Your task to perform on an android device: Add usb-c to usb-b to the cart on costco.com Image 0: 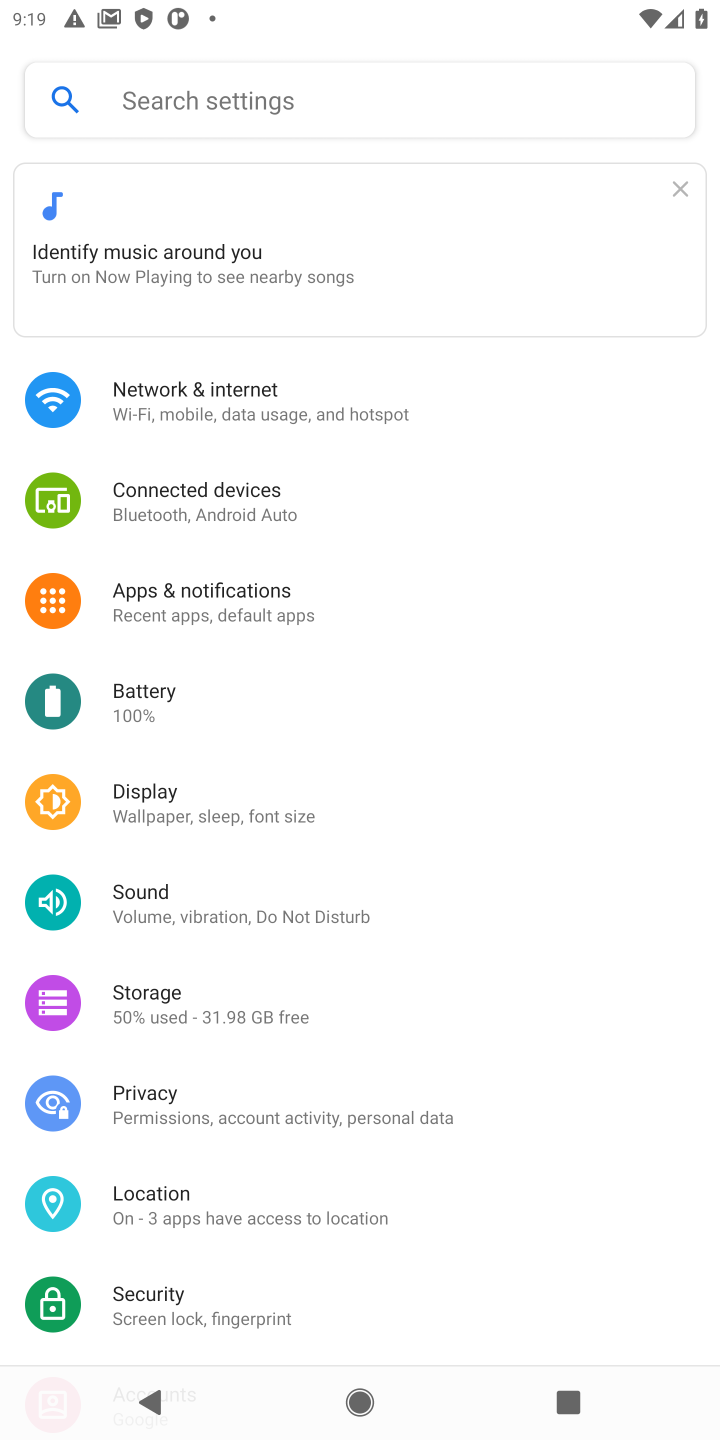
Step 0: press home button
Your task to perform on an android device: Add usb-c to usb-b to the cart on costco.com Image 1: 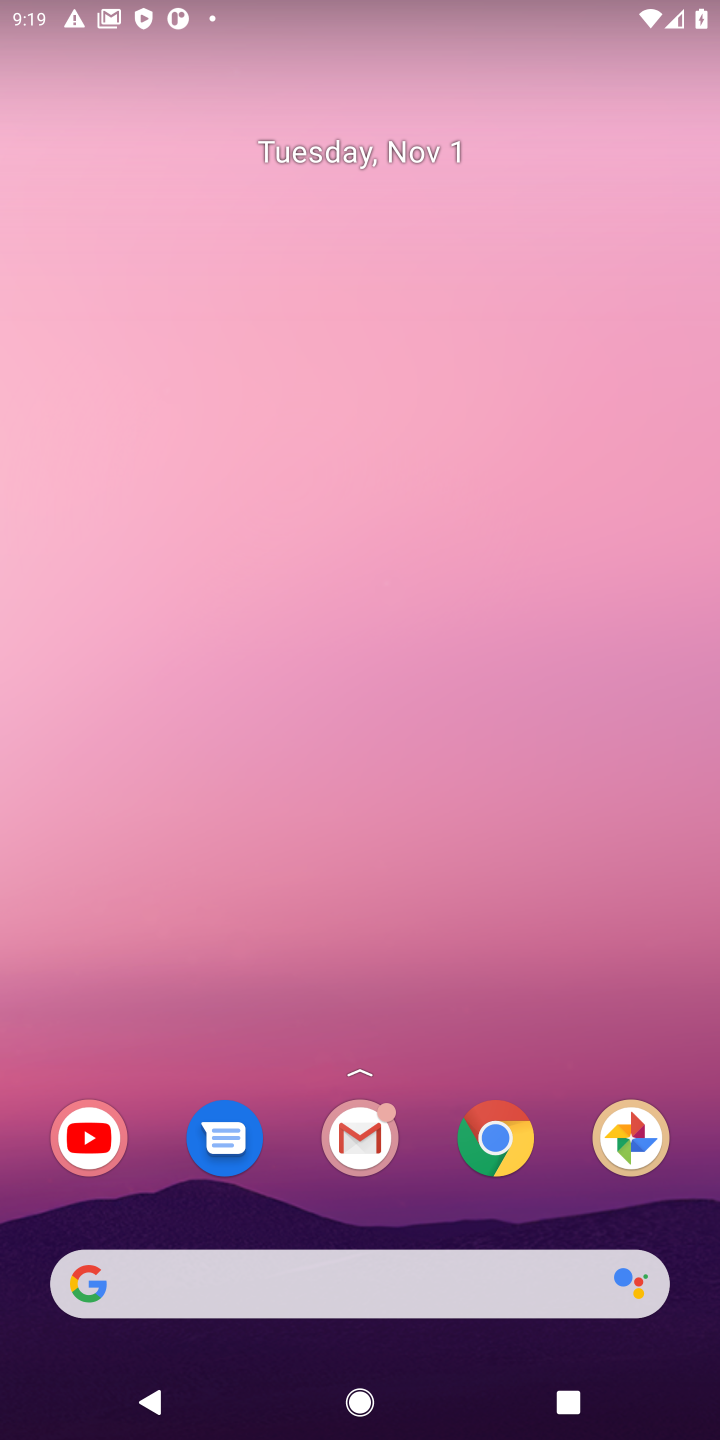
Step 1: click (491, 1158)
Your task to perform on an android device: Add usb-c to usb-b to the cart on costco.com Image 2: 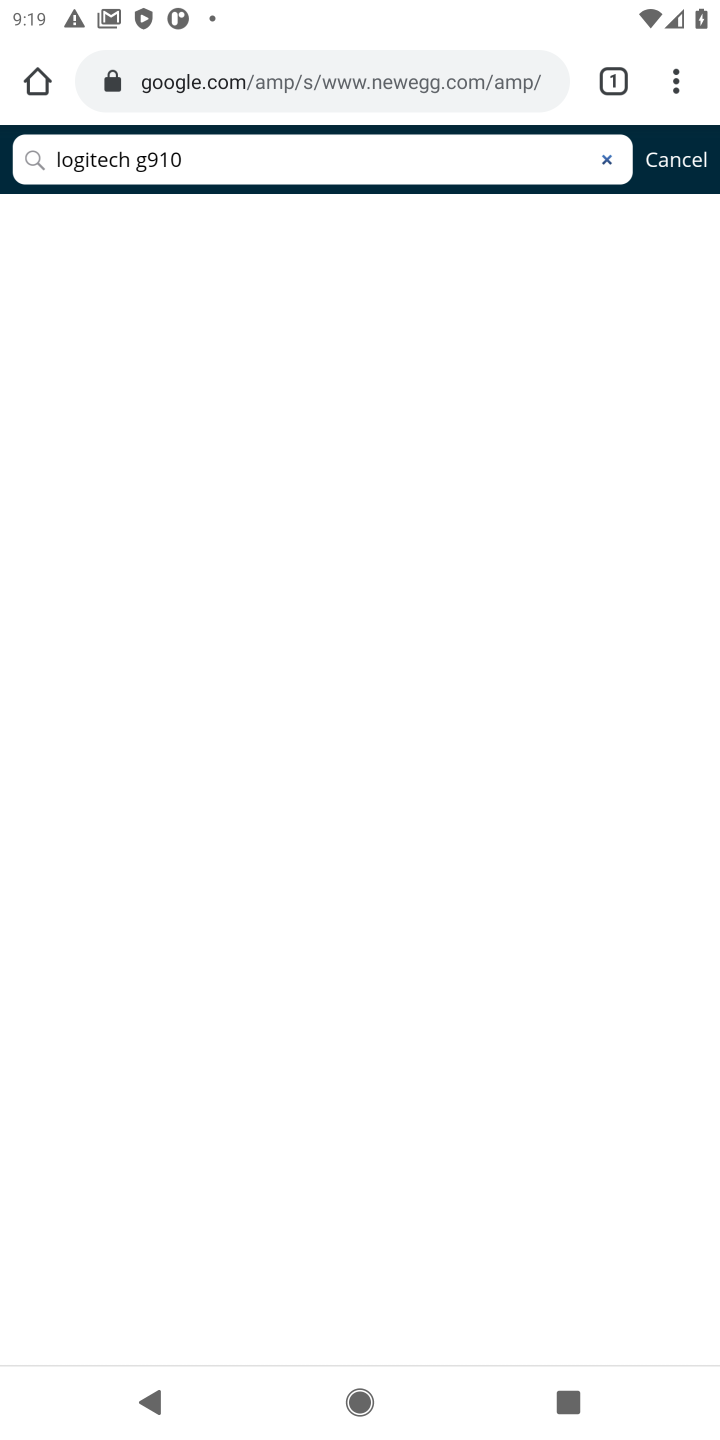
Step 2: click (249, 79)
Your task to perform on an android device: Add usb-c to usb-b to the cart on costco.com Image 3: 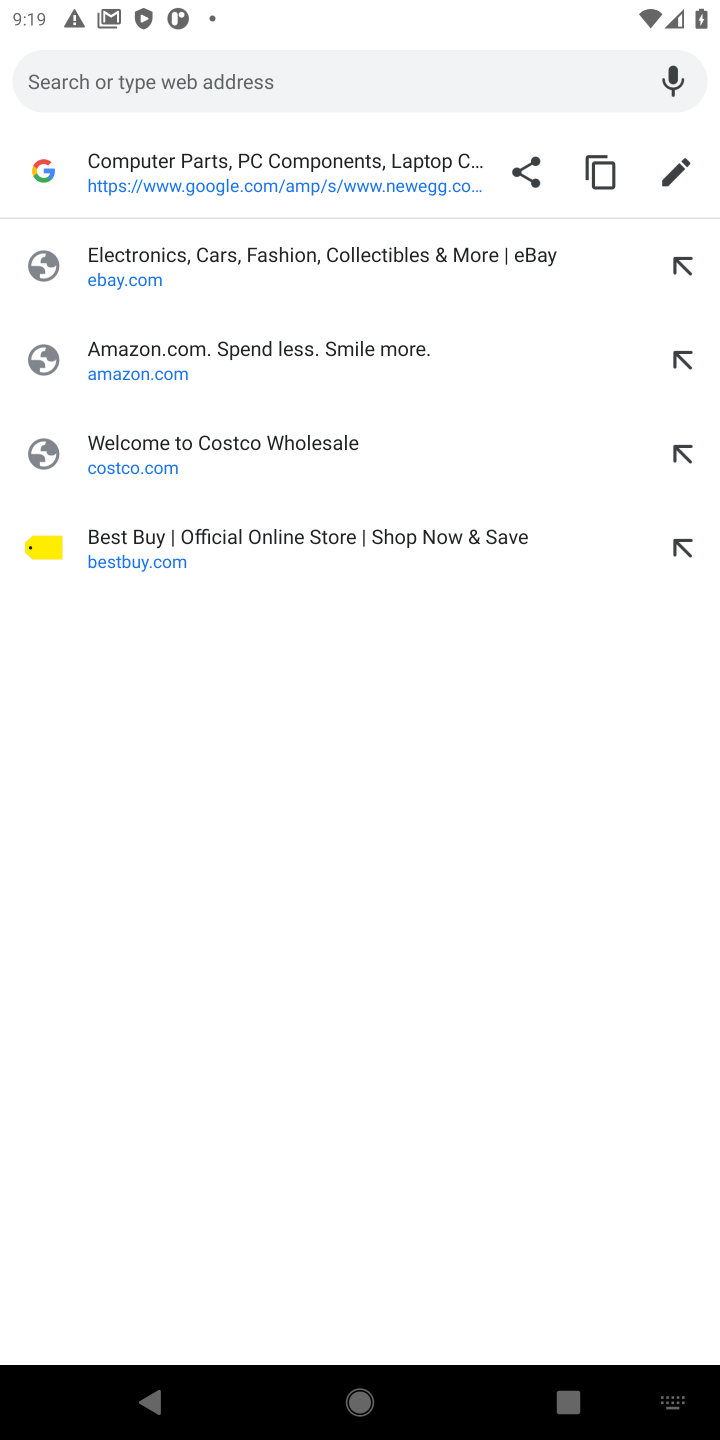
Step 3: type "costco.com"
Your task to perform on an android device: Add usb-c to usb-b to the cart on costco.com Image 4: 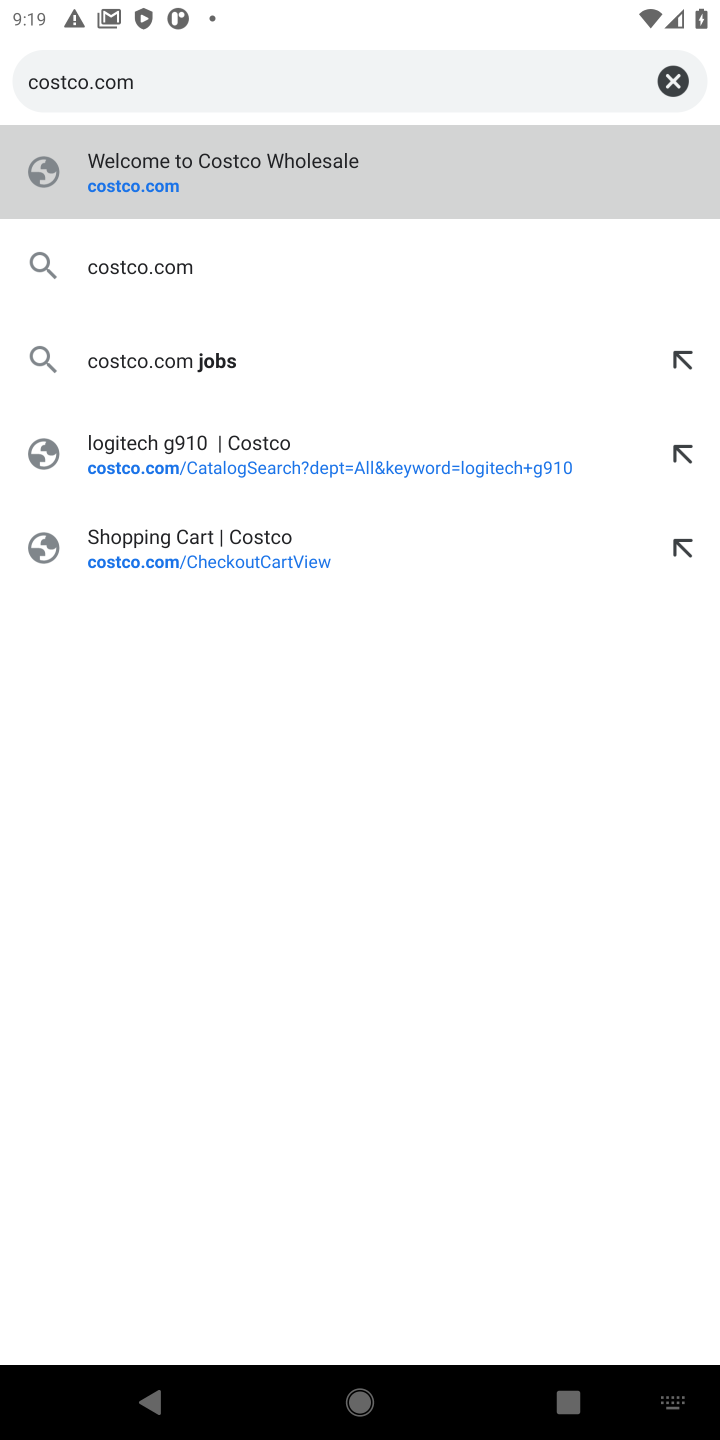
Step 4: click (131, 182)
Your task to perform on an android device: Add usb-c to usb-b to the cart on costco.com Image 5: 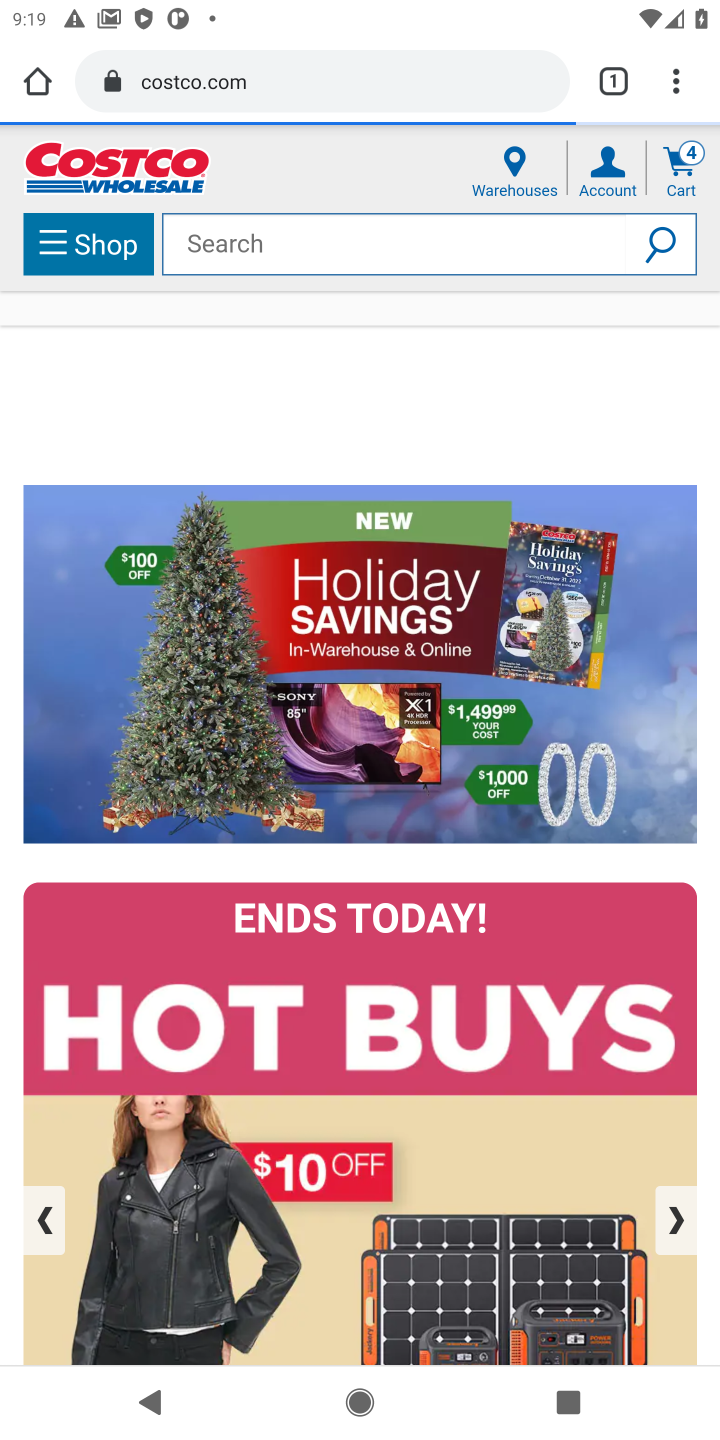
Step 5: click (229, 254)
Your task to perform on an android device: Add usb-c to usb-b to the cart on costco.com Image 6: 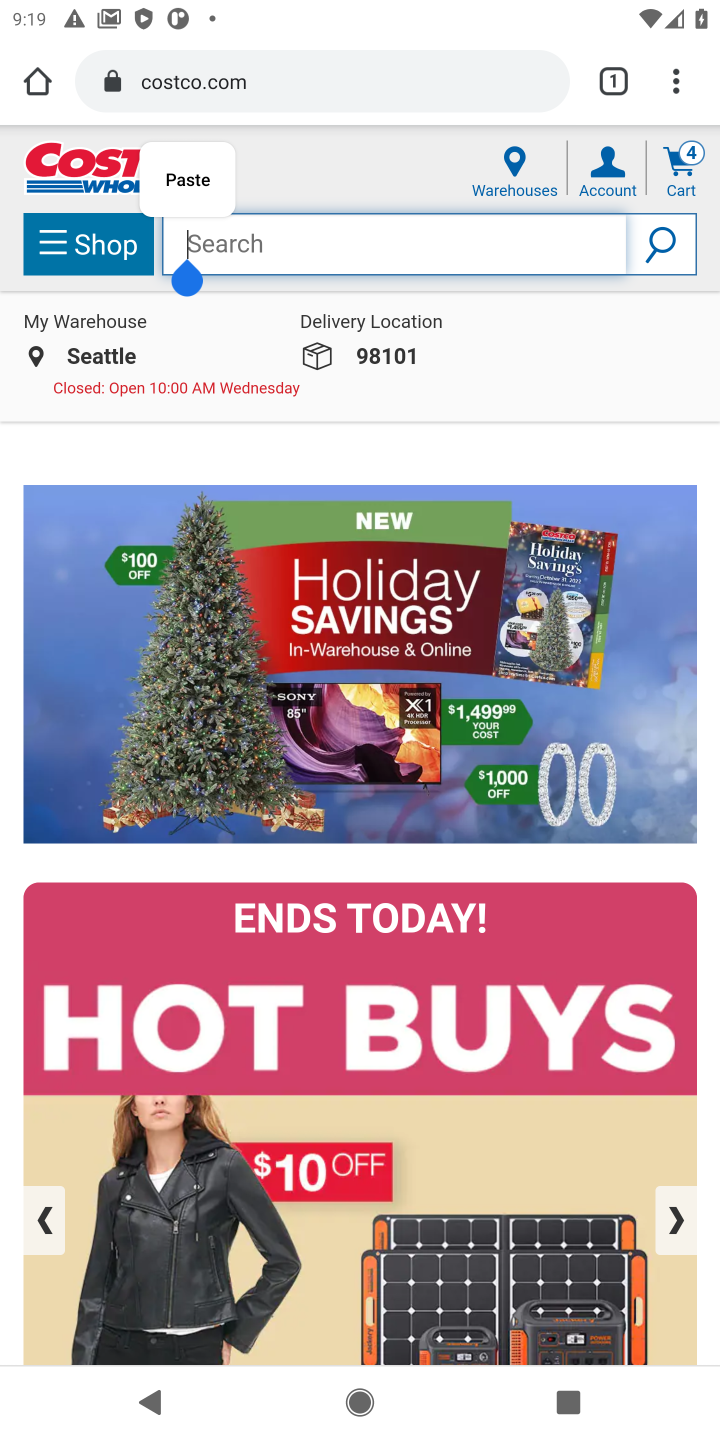
Step 6: type "usb-c to usb-b"
Your task to perform on an android device: Add usb-c to usb-b to the cart on costco.com Image 7: 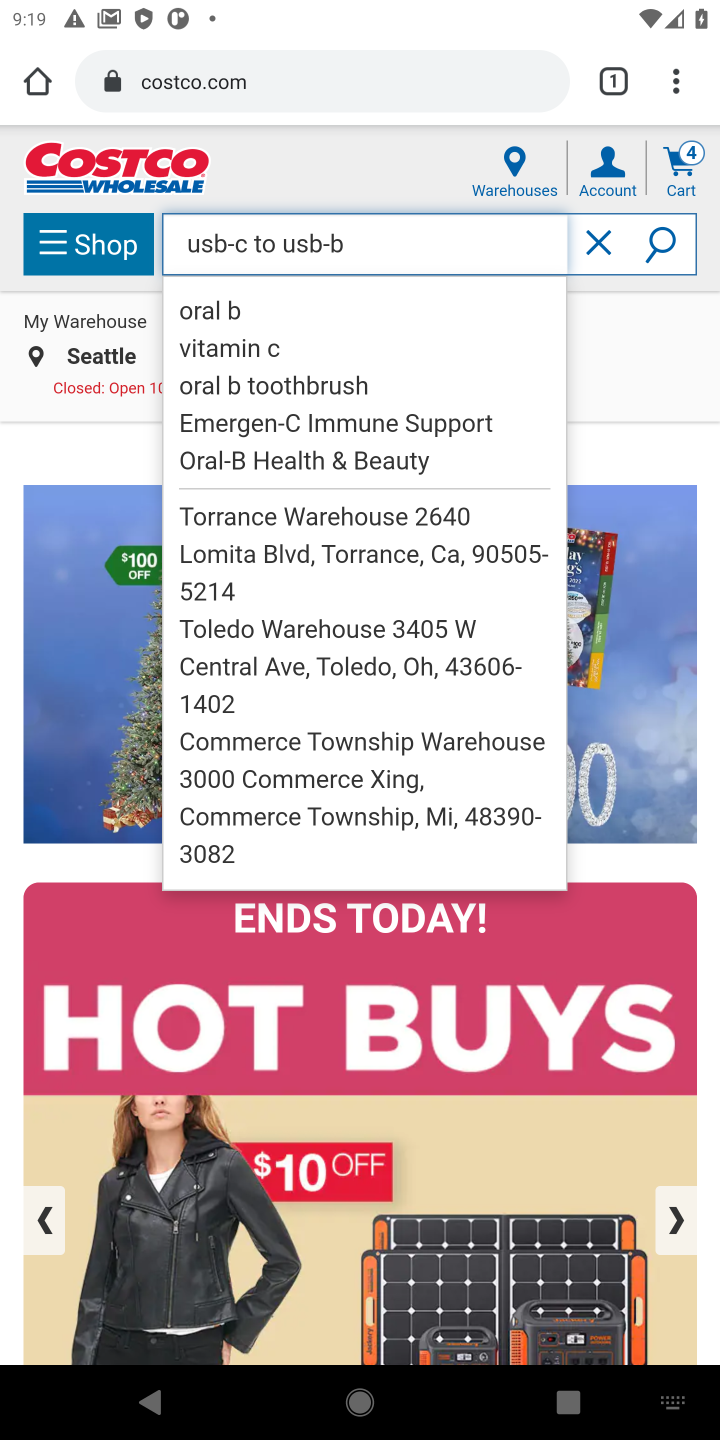
Step 7: click (641, 248)
Your task to perform on an android device: Add usb-c to usb-b to the cart on costco.com Image 8: 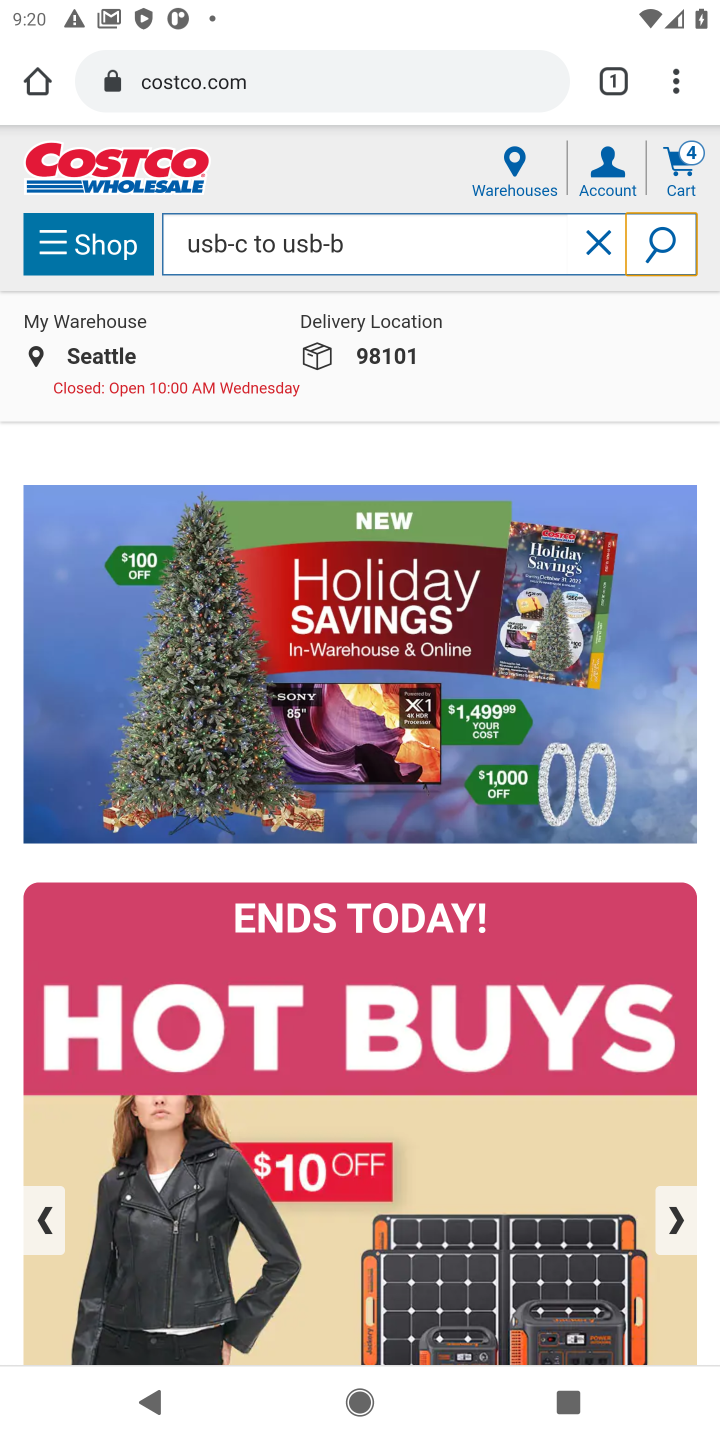
Step 8: click (653, 248)
Your task to perform on an android device: Add usb-c to usb-b to the cart on costco.com Image 9: 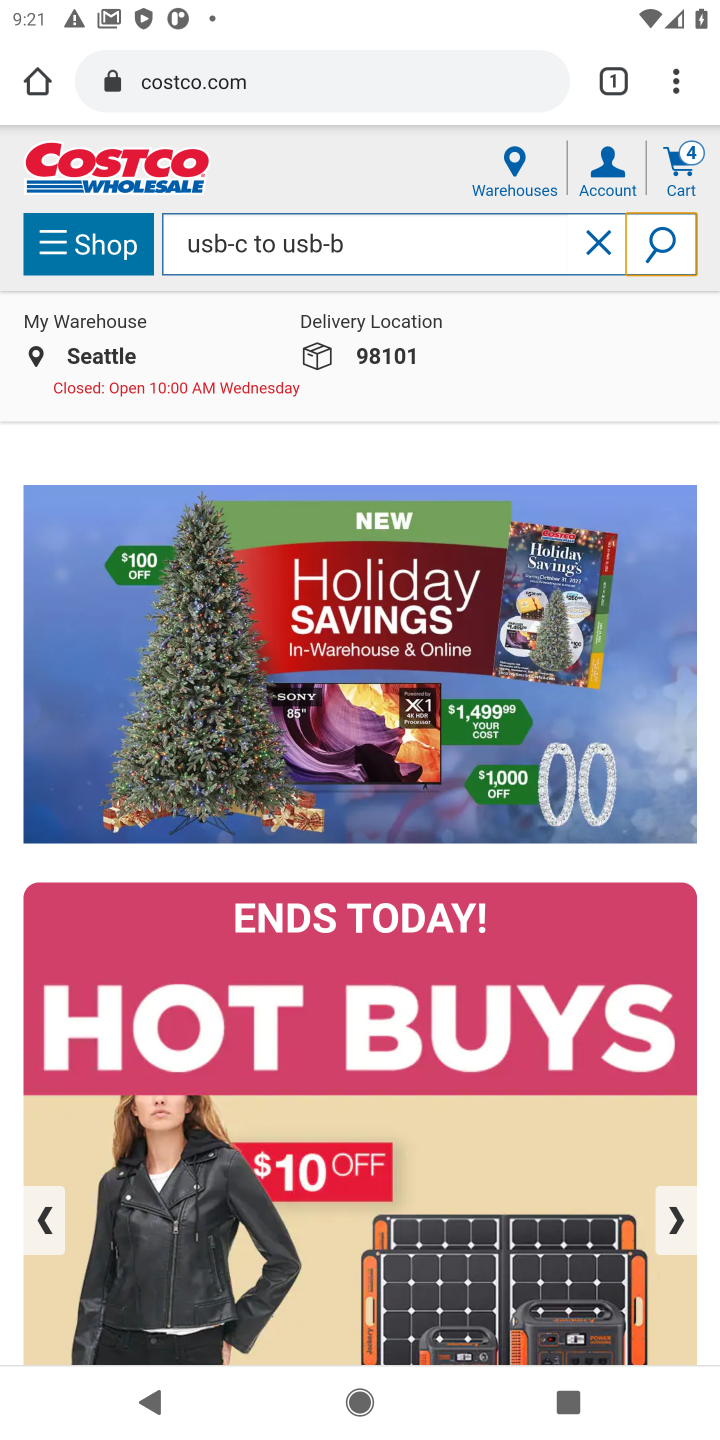
Step 9: click (659, 240)
Your task to perform on an android device: Add usb-c to usb-b to the cart on costco.com Image 10: 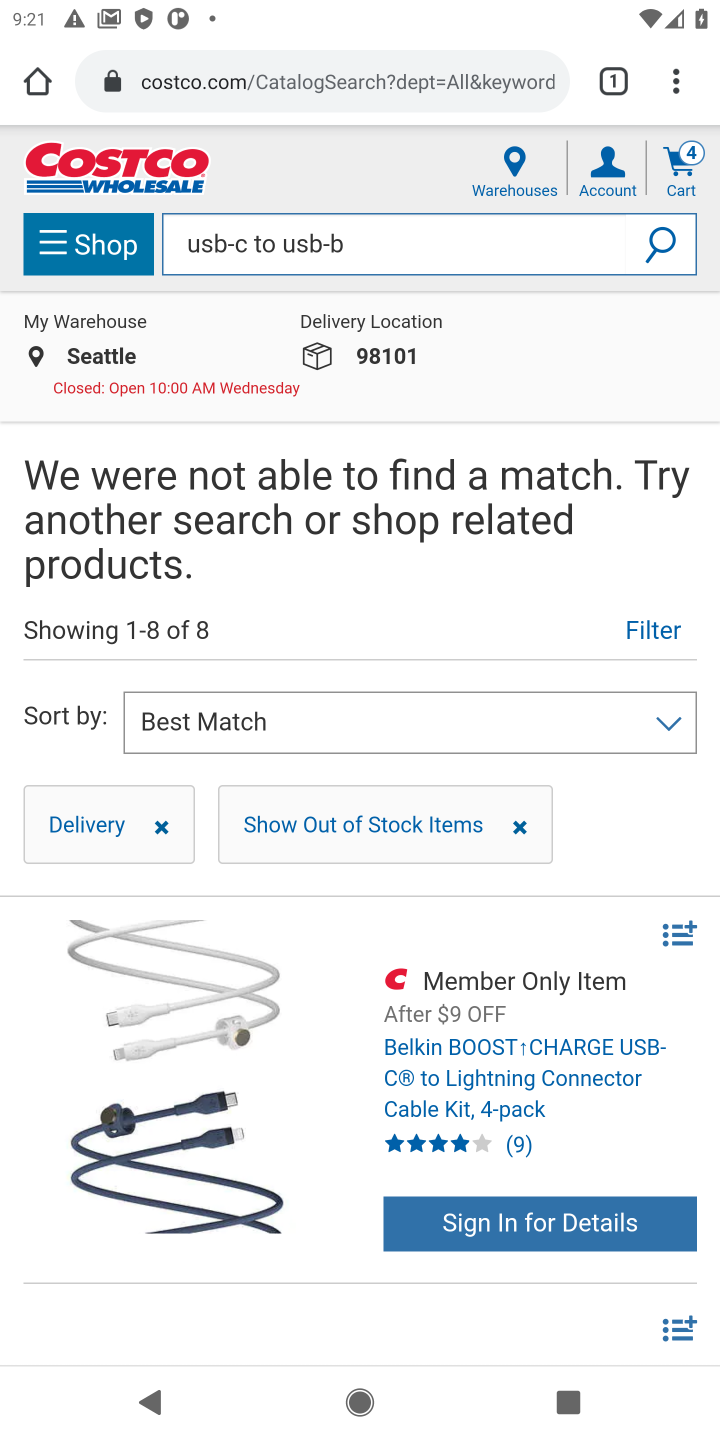
Step 10: task complete